Your task to perform on an android device: Go to Maps Image 0: 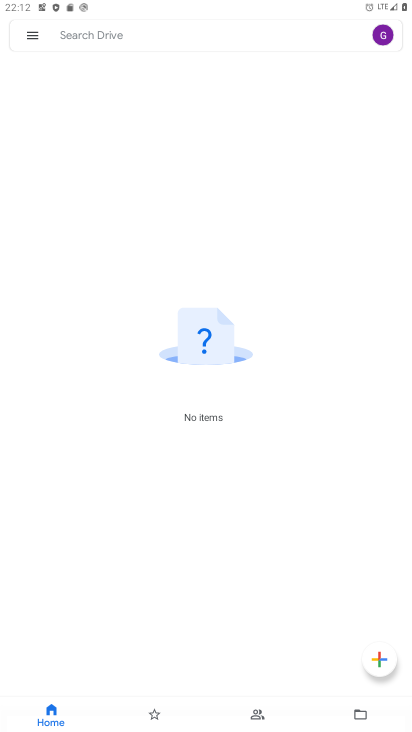
Step 0: press home button
Your task to perform on an android device: Go to Maps Image 1: 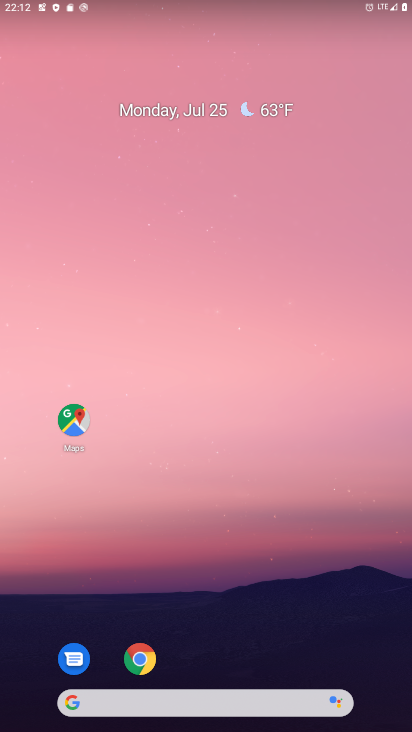
Step 1: drag from (226, 704) to (220, 215)
Your task to perform on an android device: Go to Maps Image 2: 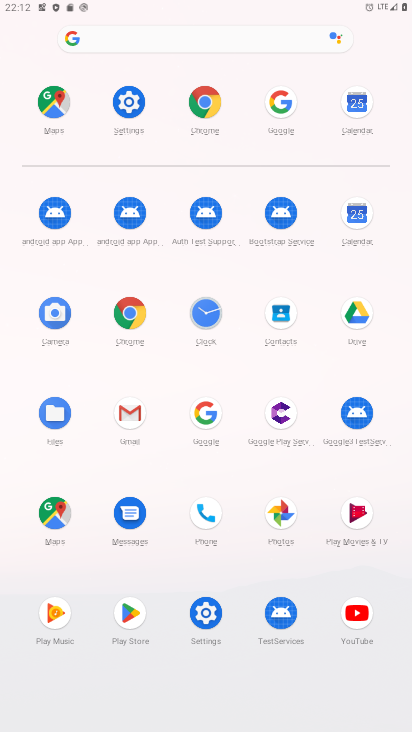
Step 2: click (52, 515)
Your task to perform on an android device: Go to Maps Image 3: 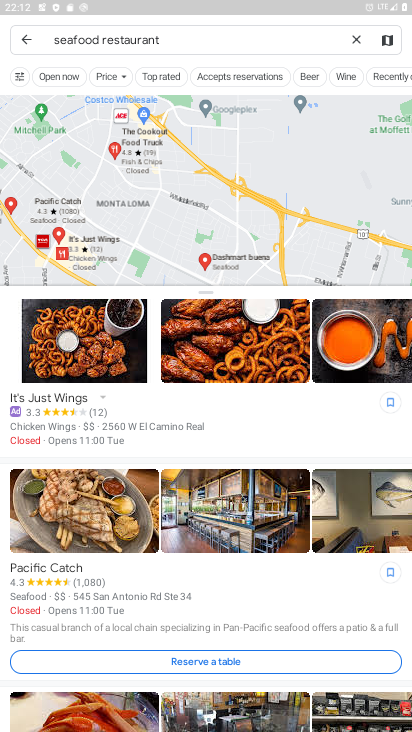
Step 3: task complete